Your task to perform on an android device: delete a single message in the gmail app Image 0: 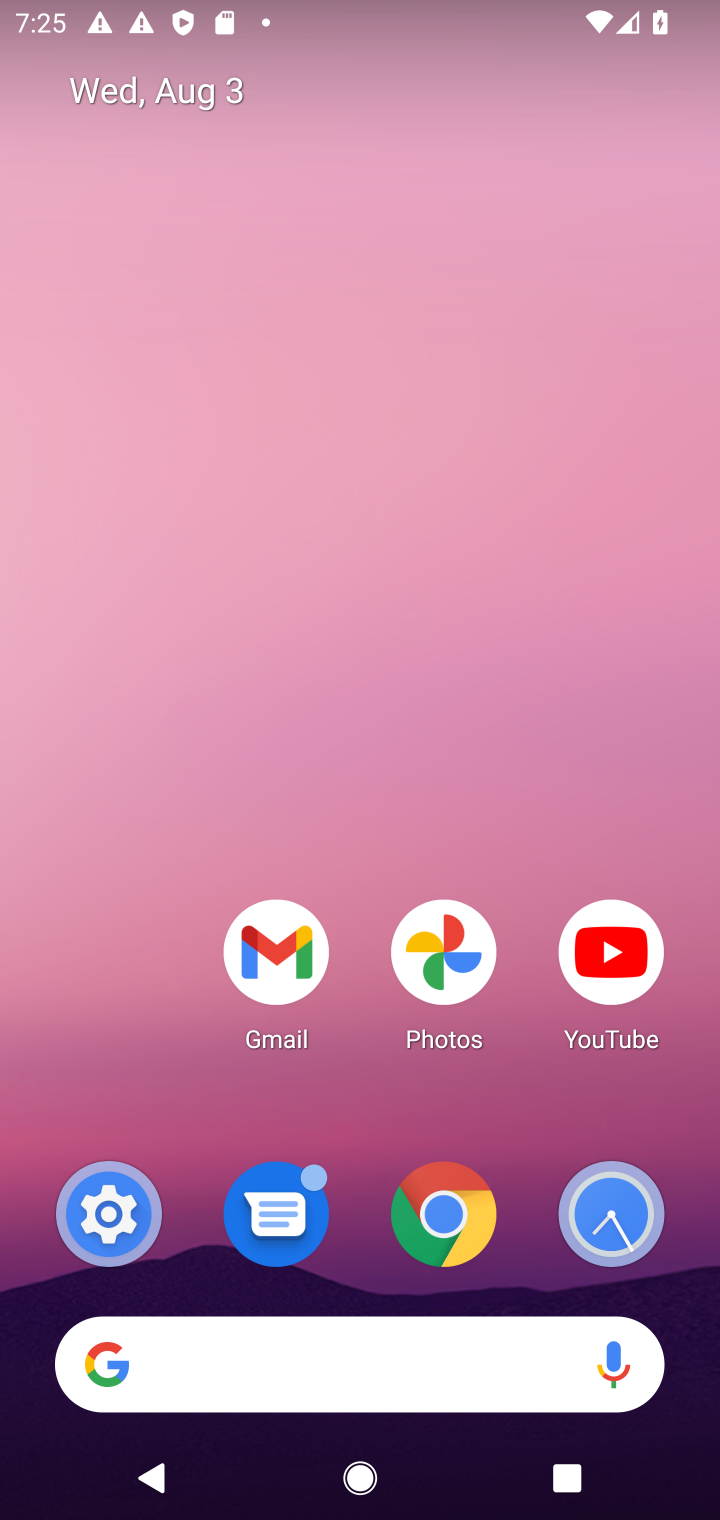
Step 0: drag from (329, 980) to (331, 522)
Your task to perform on an android device: delete a single message in the gmail app Image 1: 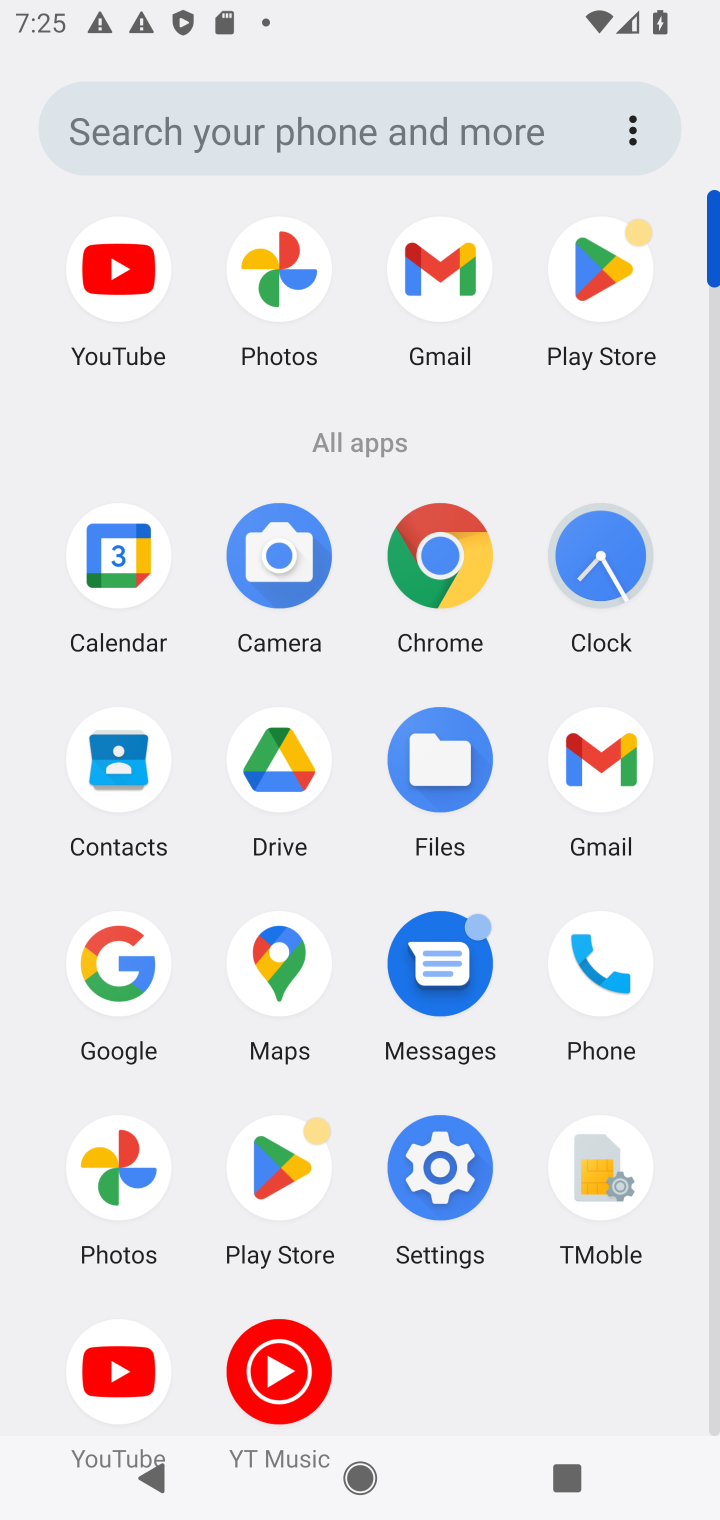
Step 1: click (597, 766)
Your task to perform on an android device: delete a single message in the gmail app Image 2: 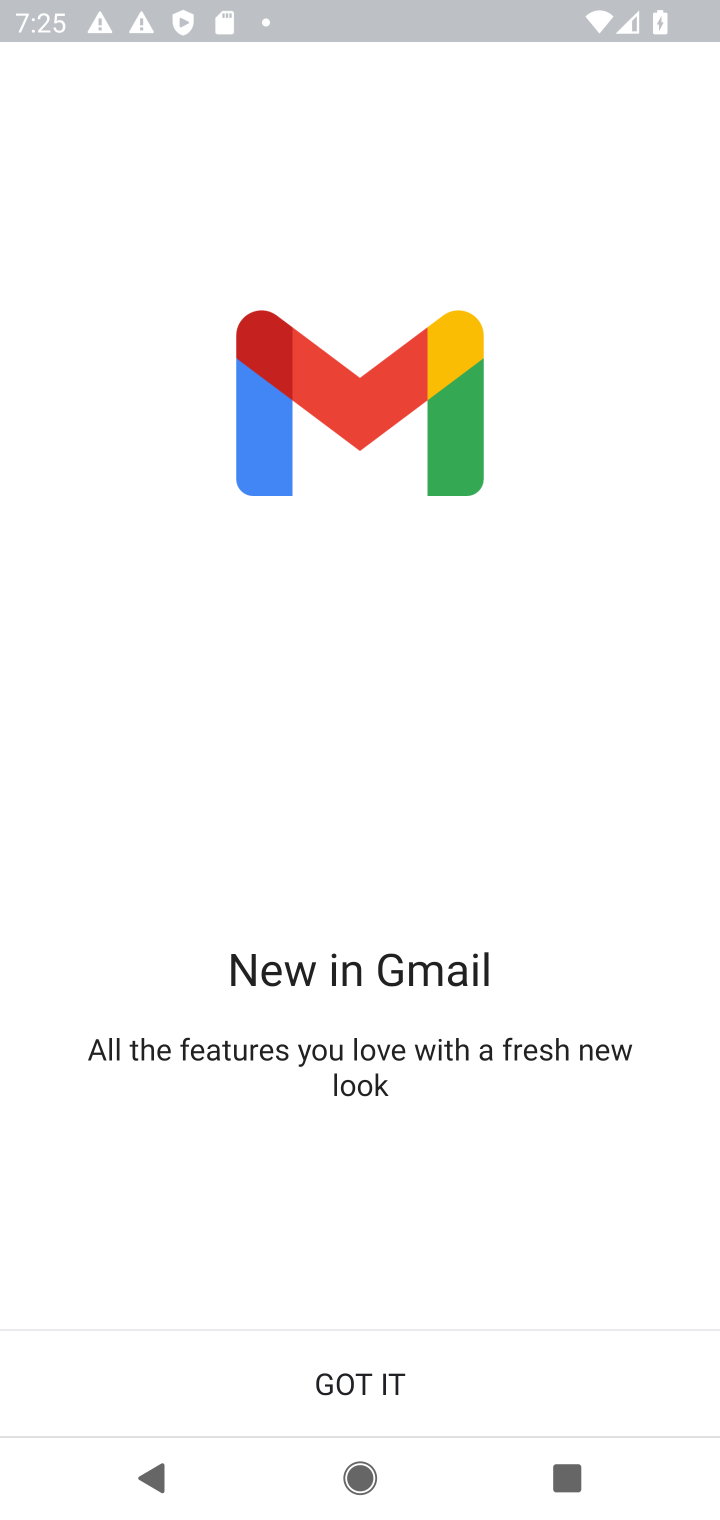
Step 2: click (346, 1367)
Your task to perform on an android device: delete a single message in the gmail app Image 3: 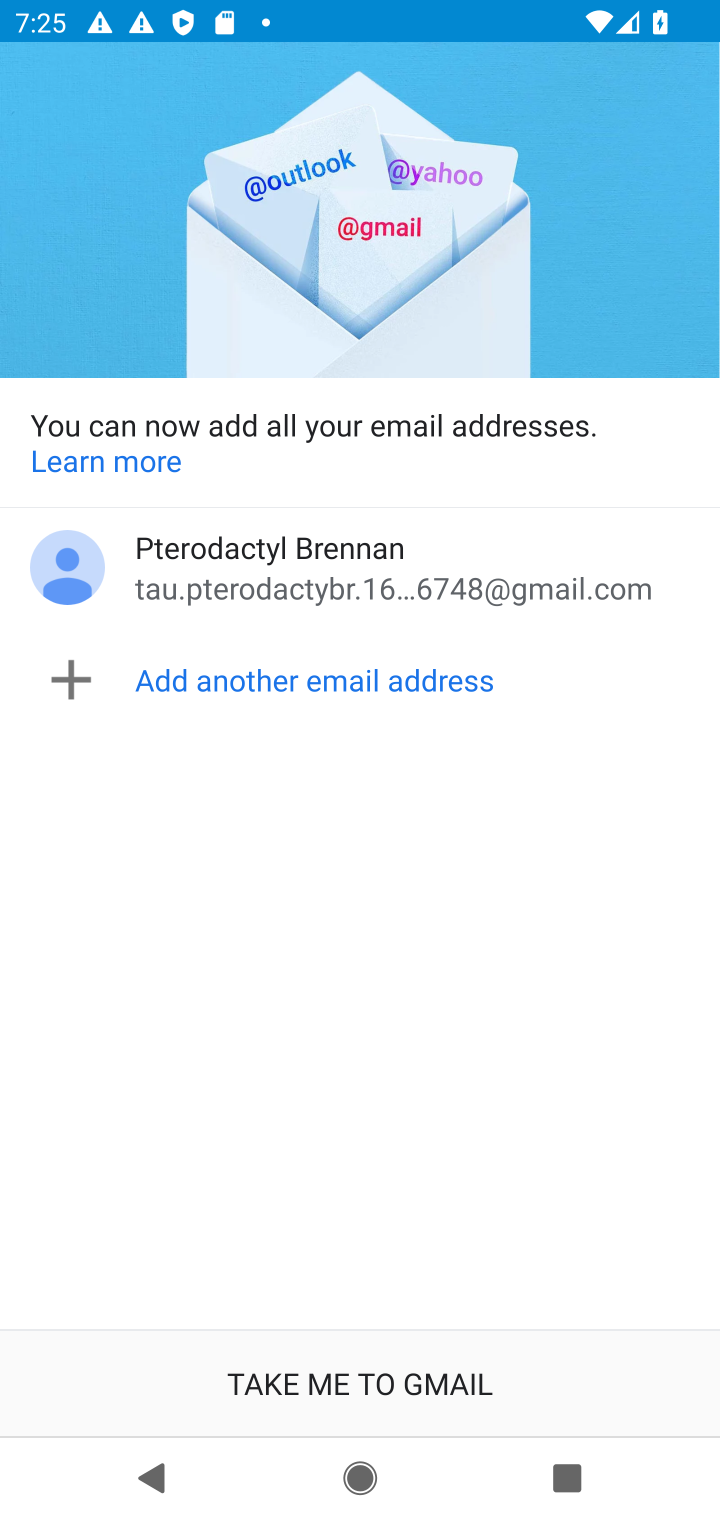
Step 3: click (279, 1391)
Your task to perform on an android device: delete a single message in the gmail app Image 4: 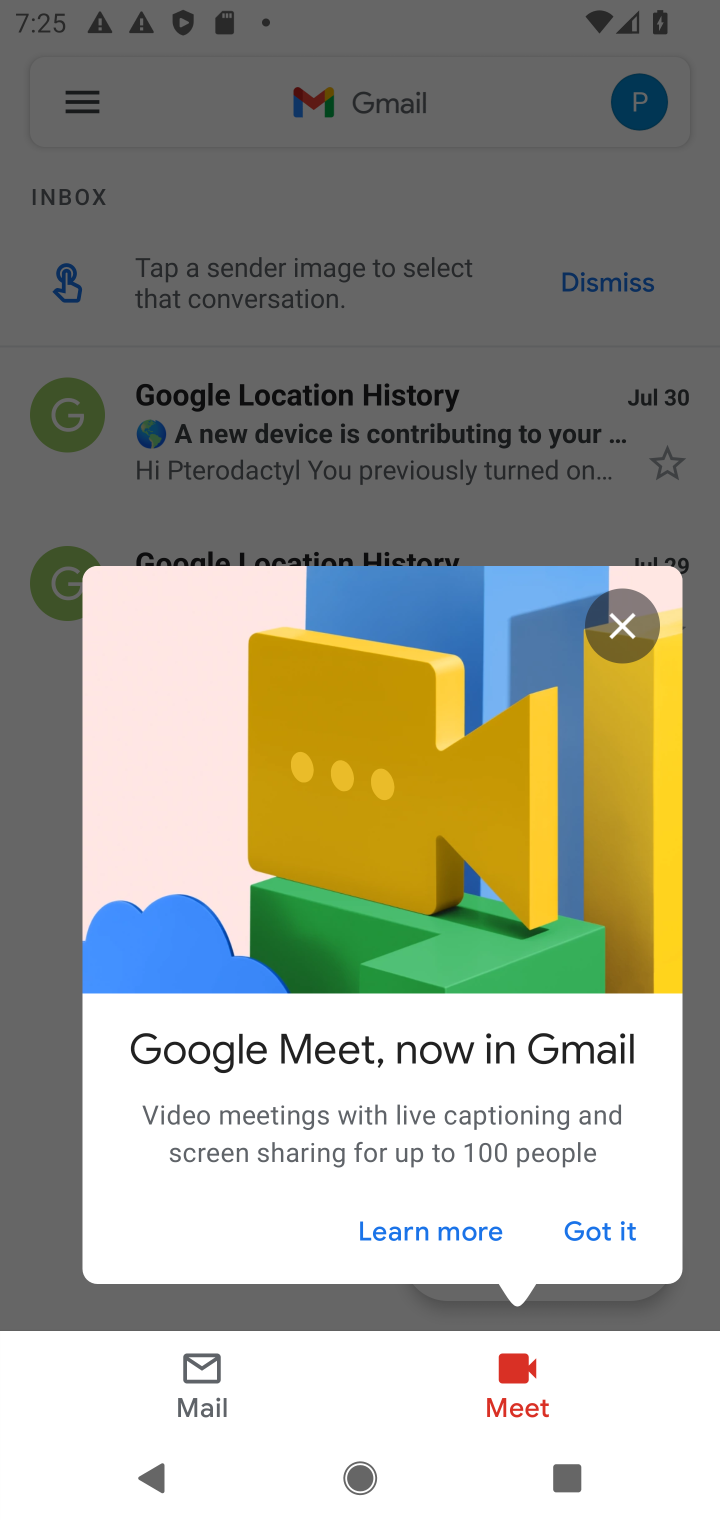
Step 4: click (594, 1230)
Your task to perform on an android device: delete a single message in the gmail app Image 5: 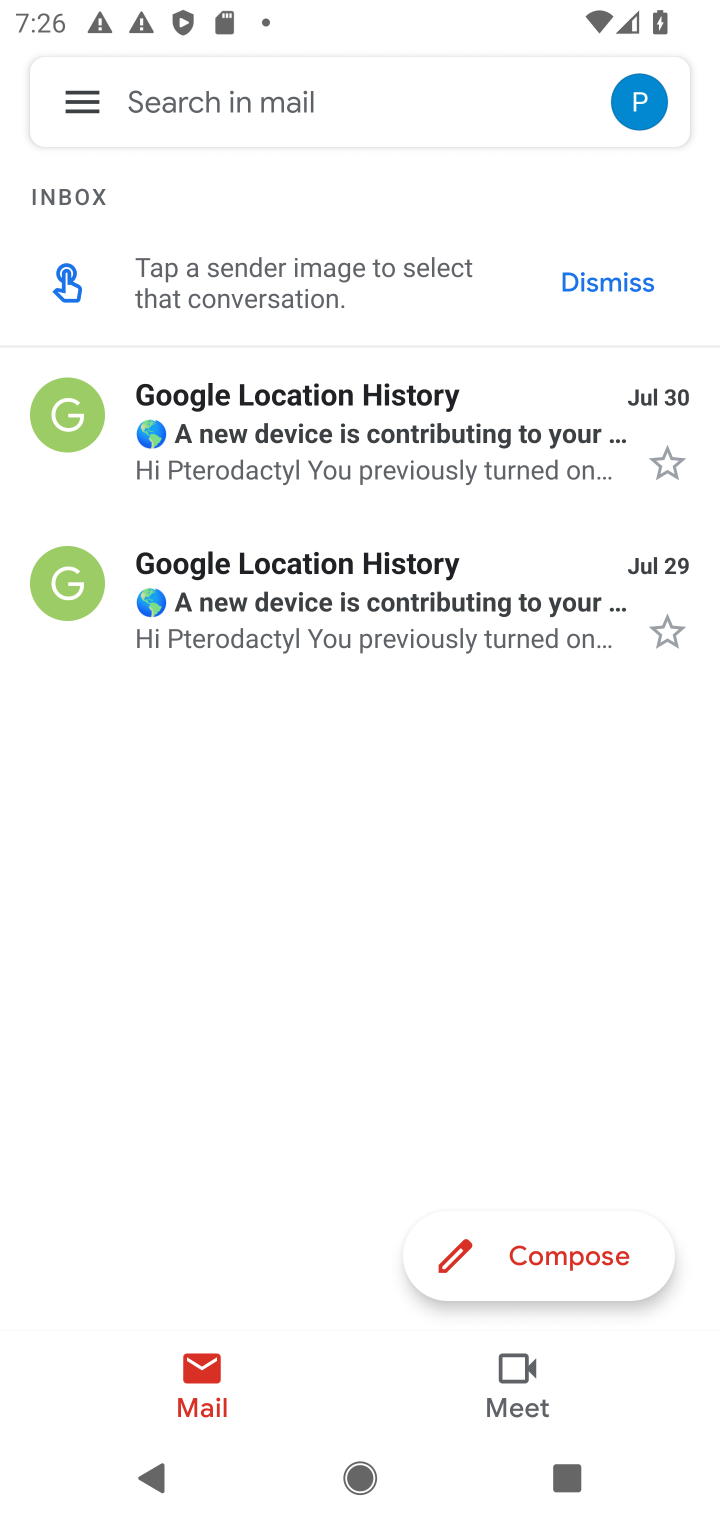
Step 5: click (283, 438)
Your task to perform on an android device: delete a single message in the gmail app Image 6: 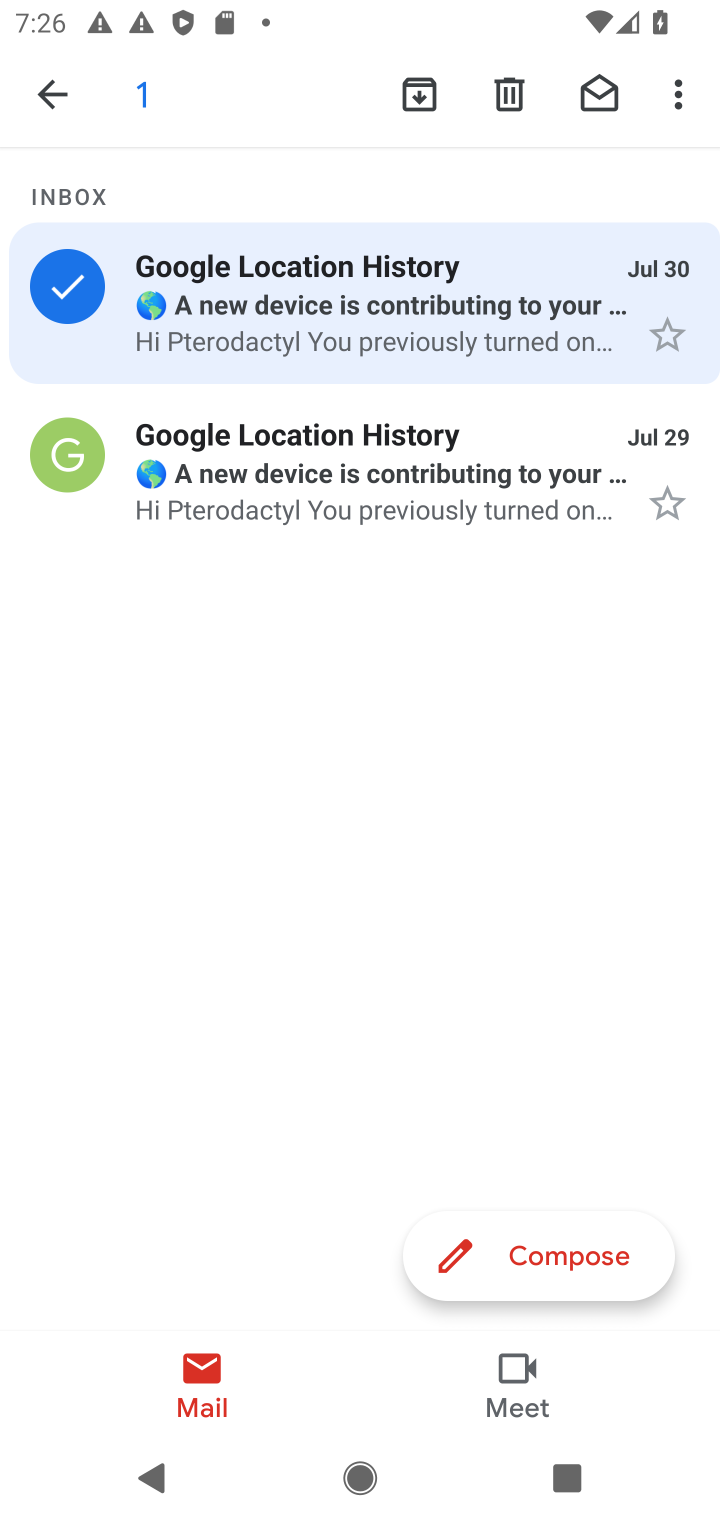
Step 6: click (512, 104)
Your task to perform on an android device: delete a single message in the gmail app Image 7: 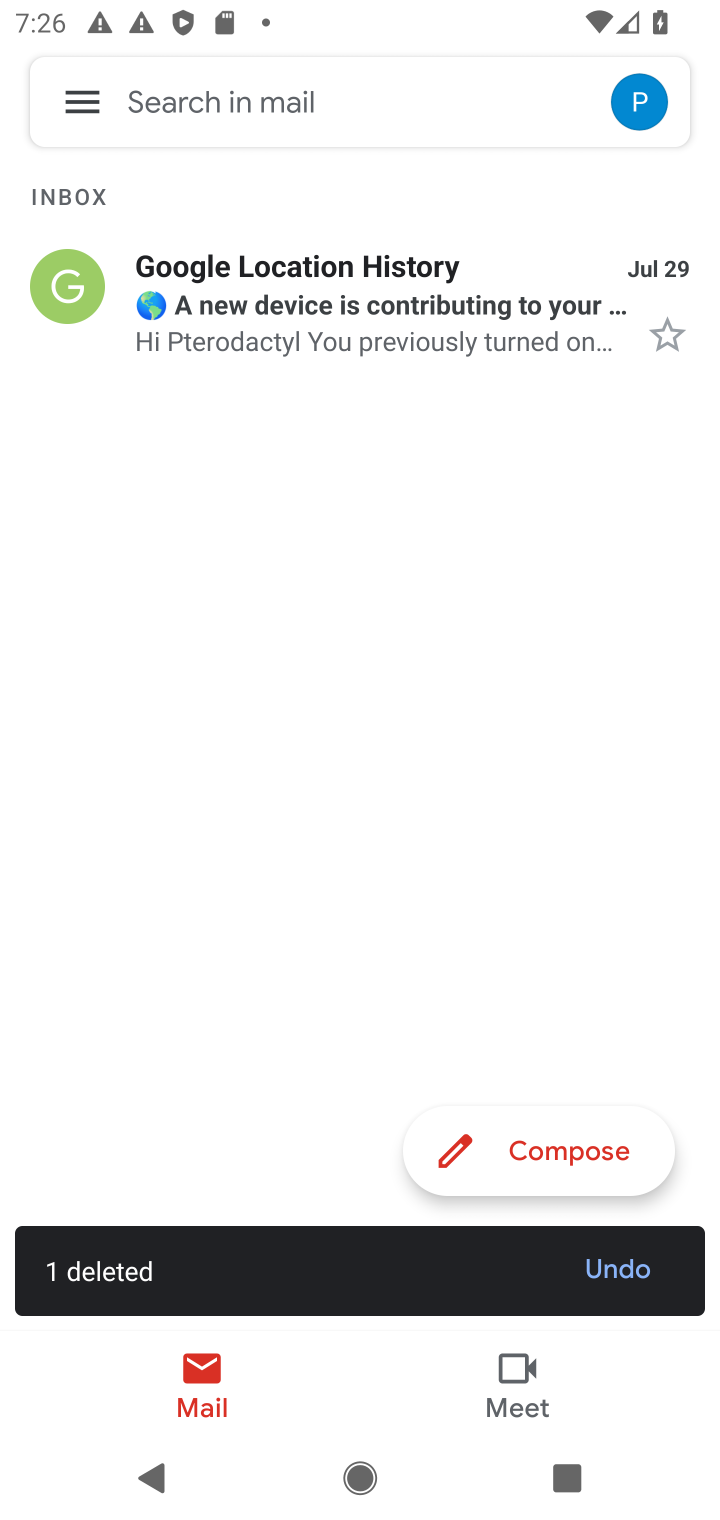
Step 7: task complete